Your task to perform on an android device: Open Youtube and go to the subscriptions tab Image 0: 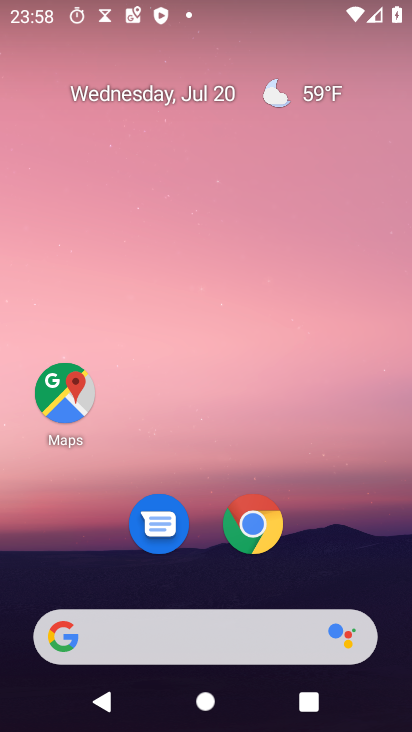
Step 0: drag from (186, 625) to (267, 44)
Your task to perform on an android device: Open Youtube and go to the subscriptions tab Image 1: 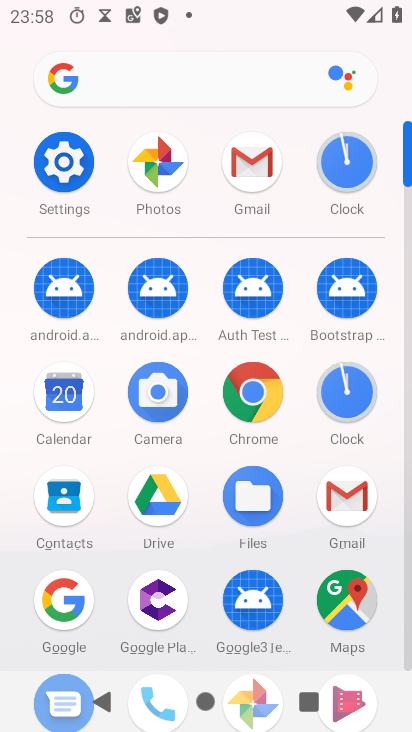
Step 1: drag from (210, 599) to (303, 153)
Your task to perform on an android device: Open Youtube and go to the subscriptions tab Image 2: 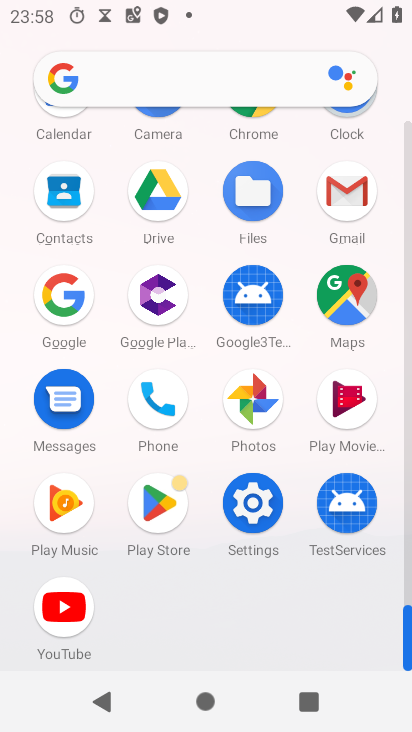
Step 2: click (67, 610)
Your task to perform on an android device: Open Youtube and go to the subscriptions tab Image 3: 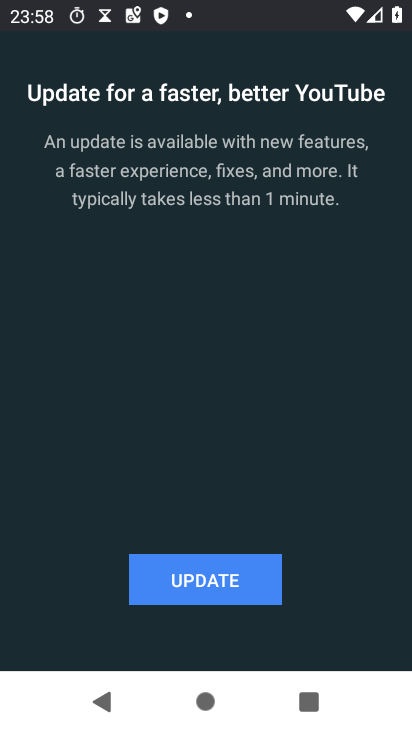
Step 3: click (208, 585)
Your task to perform on an android device: Open Youtube and go to the subscriptions tab Image 4: 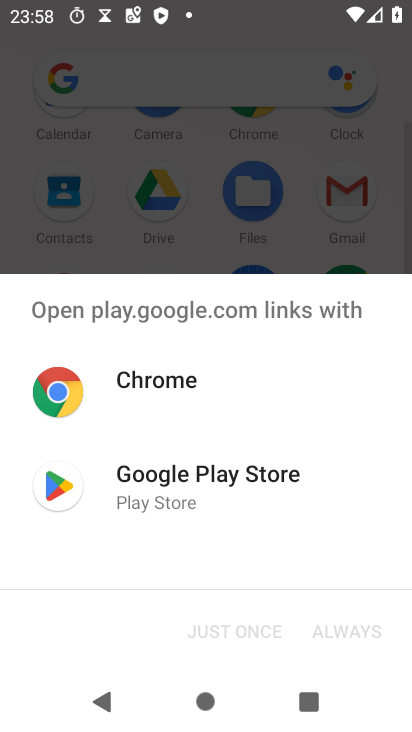
Step 4: click (181, 481)
Your task to perform on an android device: Open Youtube and go to the subscriptions tab Image 5: 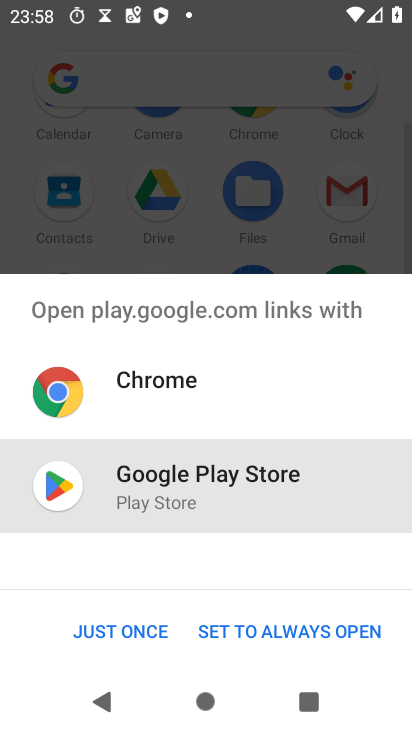
Step 5: click (138, 625)
Your task to perform on an android device: Open Youtube and go to the subscriptions tab Image 6: 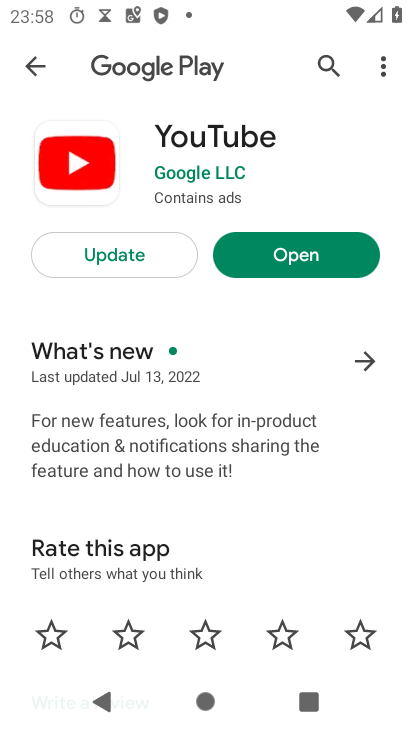
Step 6: click (121, 247)
Your task to perform on an android device: Open Youtube and go to the subscriptions tab Image 7: 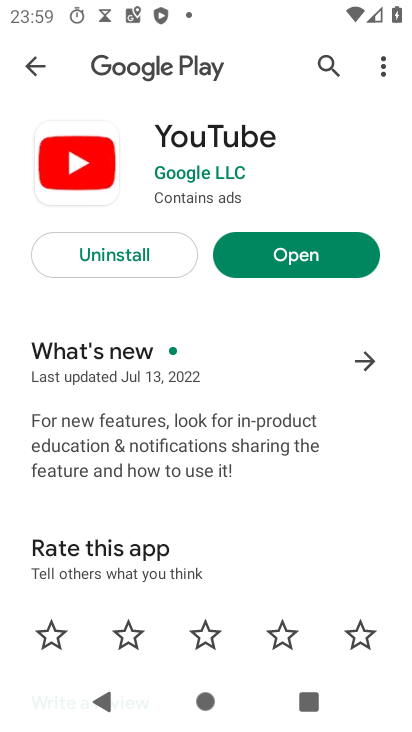
Step 7: click (322, 249)
Your task to perform on an android device: Open Youtube and go to the subscriptions tab Image 8: 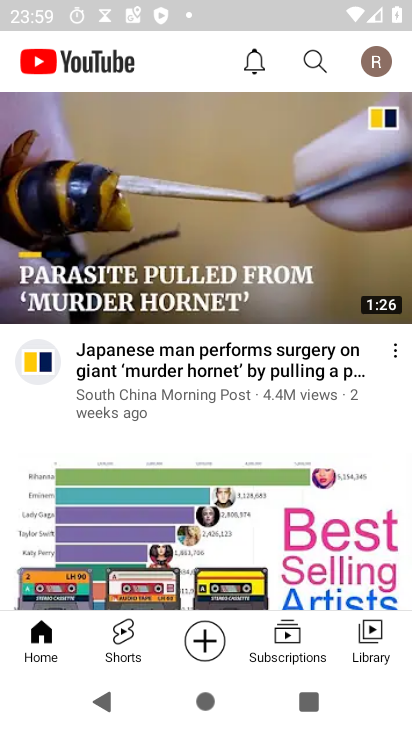
Step 8: click (286, 638)
Your task to perform on an android device: Open Youtube and go to the subscriptions tab Image 9: 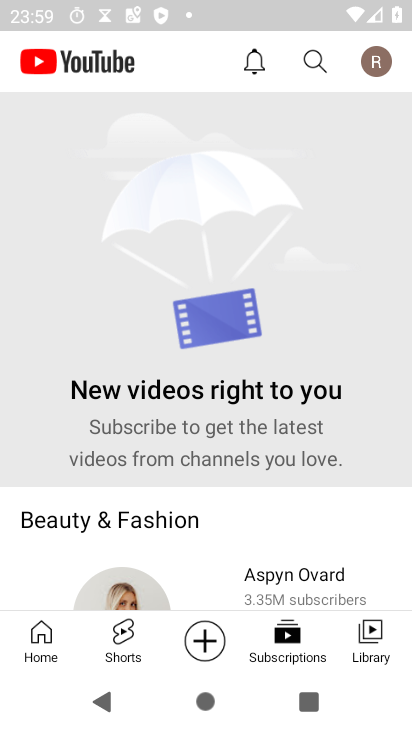
Step 9: task complete